Your task to perform on an android device: toggle notification dots Image 0: 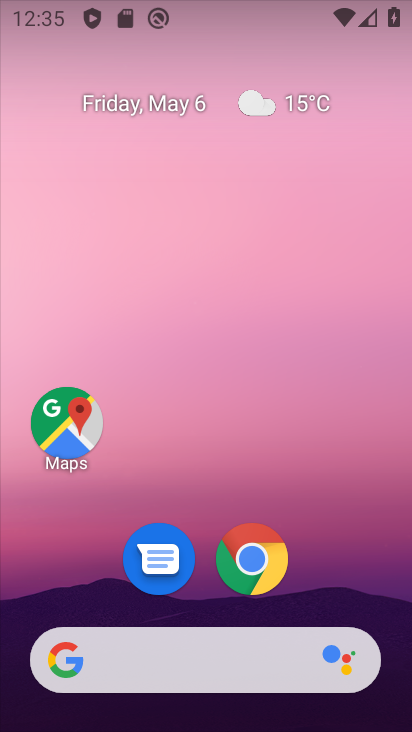
Step 0: drag from (208, 581) to (232, 106)
Your task to perform on an android device: toggle notification dots Image 1: 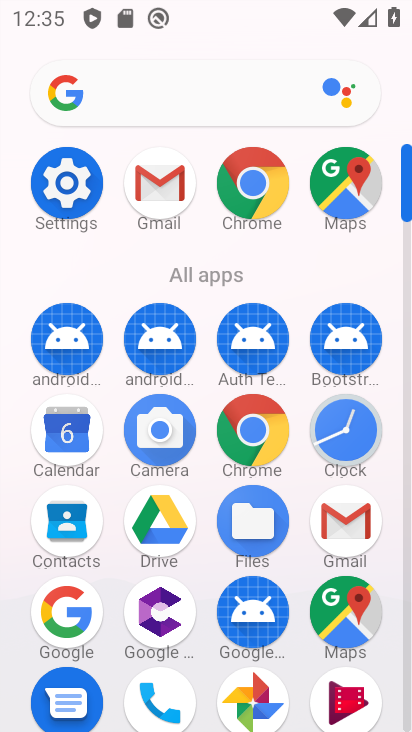
Step 1: click (78, 191)
Your task to perform on an android device: toggle notification dots Image 2: 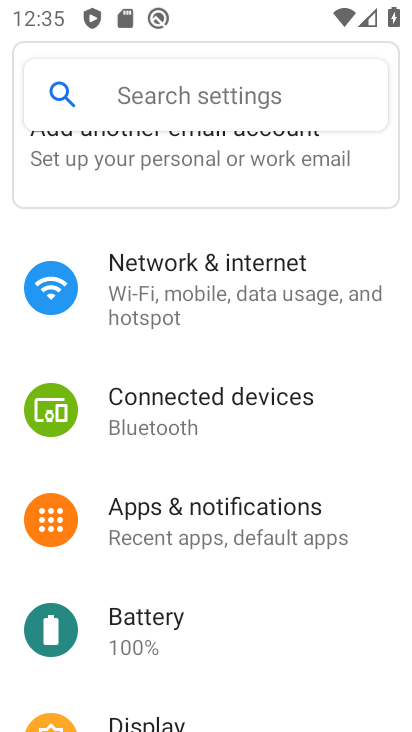
Step 2: click (221, 507)
Your task to perform on an android device: toggle notification dots Image 3: 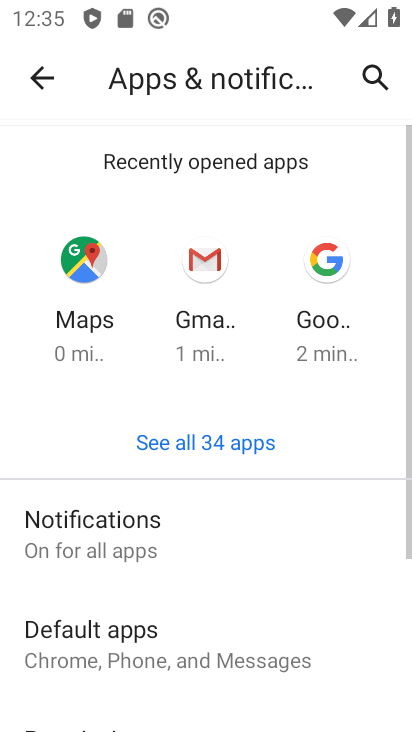
Step 3: click (152, 533)
Your task to perform on an android device: toggle notification dots Image 4: 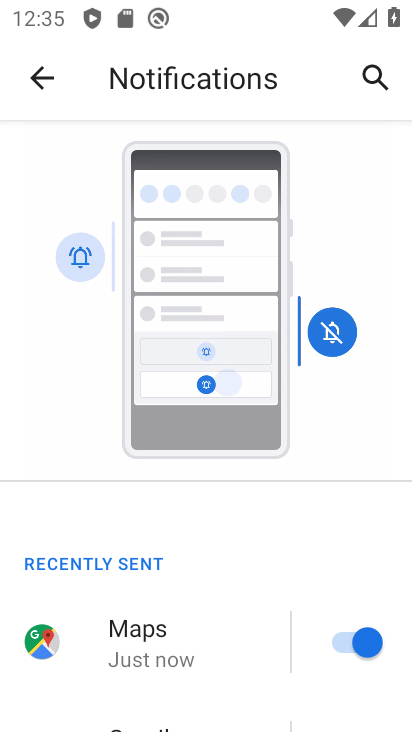
Step 4: drag from (228, 650) to (253, 174)
Your task to perform on an android device: toggle notification dots Image 5: 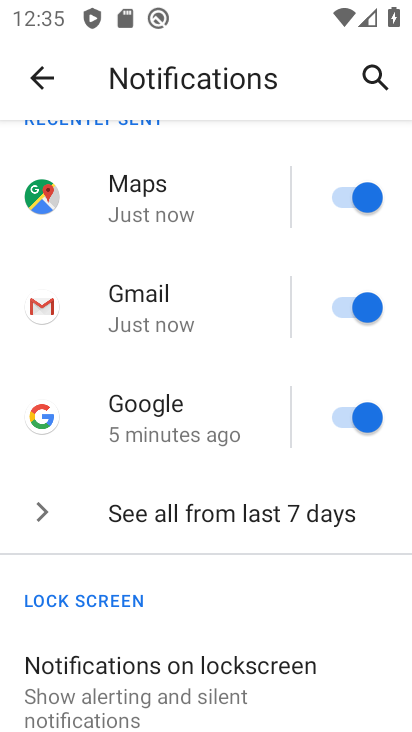
Step 5: drag from (190, 590) to (224, 122)
Your task to perform on an android device: toggle notification dots Image 6: 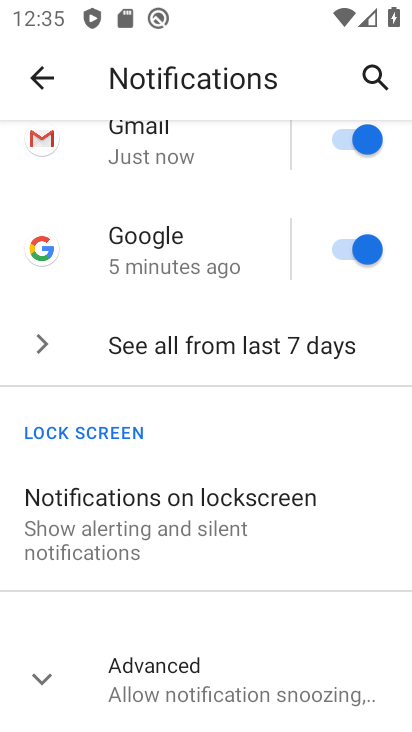
Step 6: click (97, 702)
Your task to perform on an android device: toggle notification dots Image 7: 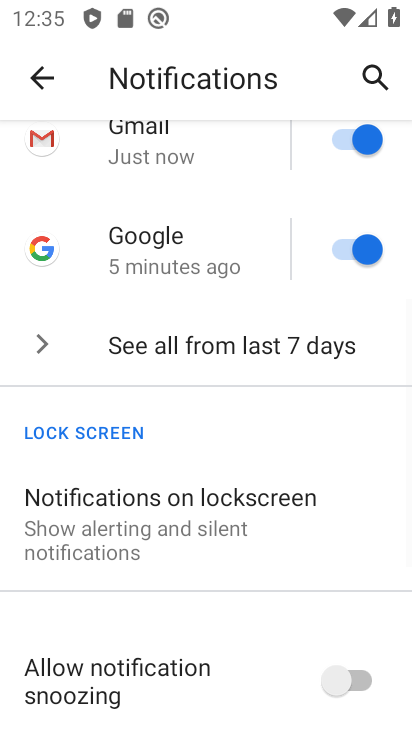
Step 7: drag from (196, 634) to (242, 253)
Your task to perform on an android device: toggle notification dots Image 8: 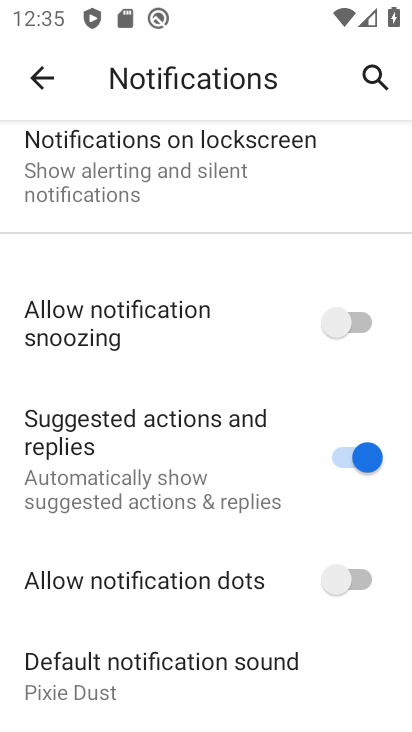
Step 8: click (342, 579)
Your task to perform on an android device: toggle notification dots Image 9: 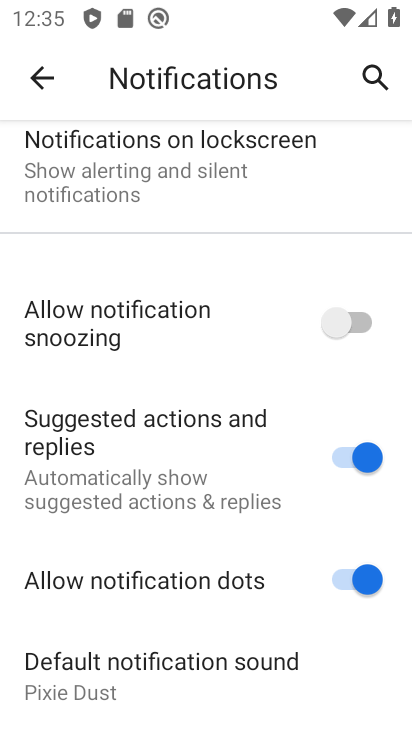
Step 9: task complete